Your task to perform on an android device: Open Chrome and go to the settings page Image 0: 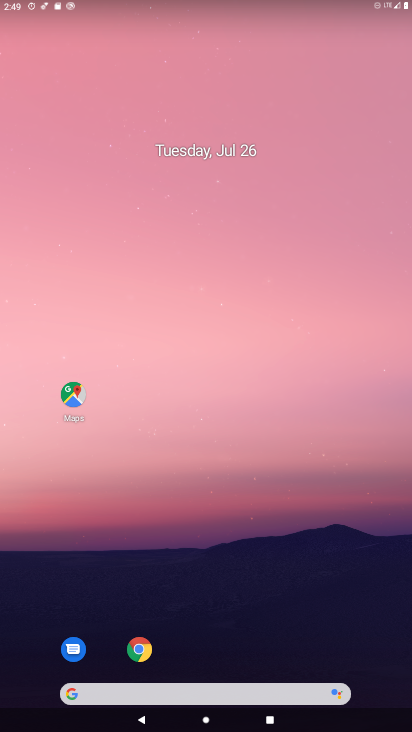
Step 0: drag from (342, 635) to (183, 38)
Your task to perform on an android device: Open Chrome and go to the settings page Image 1: 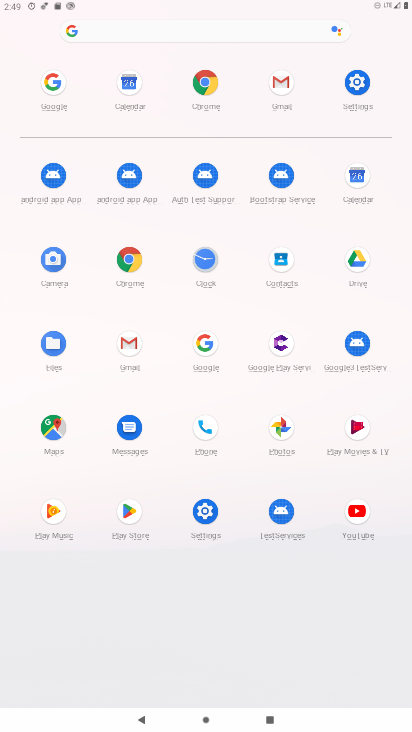
Step 1: click (125, 267)
Your task to perform on an android device: Open Chrome and go to the settings page Image 2: 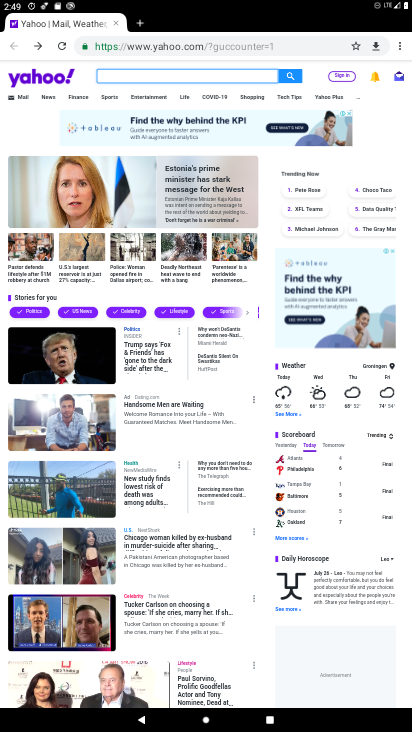
Step 2: click (401, 49)
Your task to perform on an android device: Open Chrome and go to the settings page Image 3: 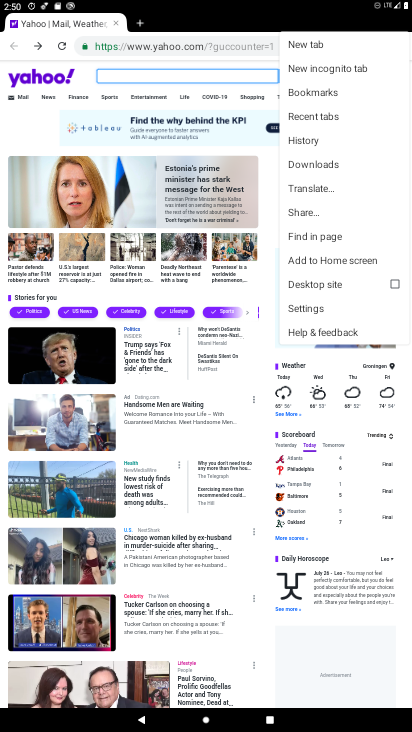
Step 3: click (314, 306)
Your task to perform on an android device: Open Chrome and go to the settings page Image 4: 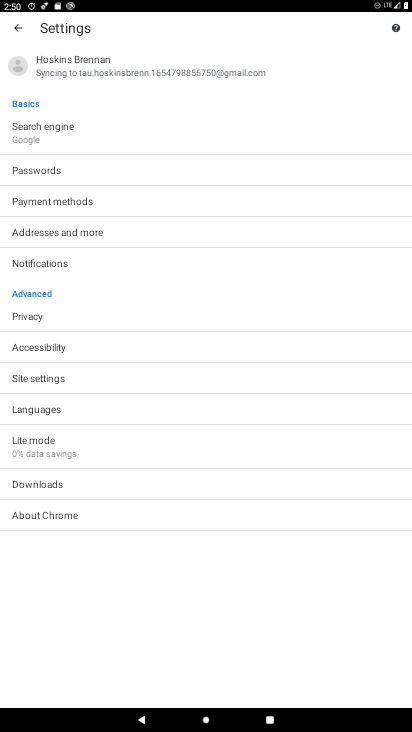
Step 4: task complete